Your task to perform on an android device: Open the Play Movies app and select the watchlist tab. Image 0: 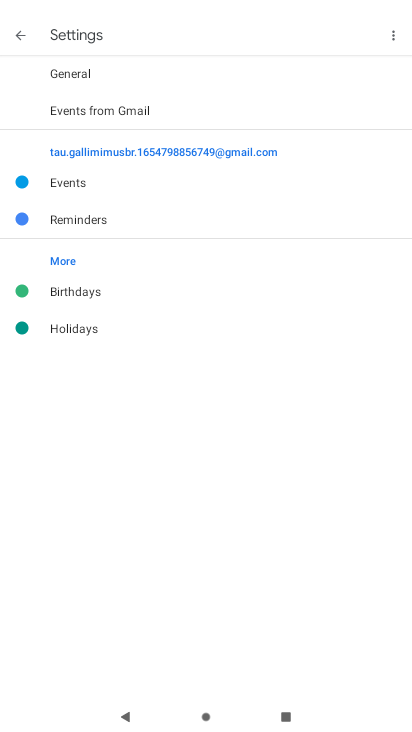
Step 0: press home button
Your task to perform on an android device: Open the Play Movies app and select the watchlist tab. Image 1: 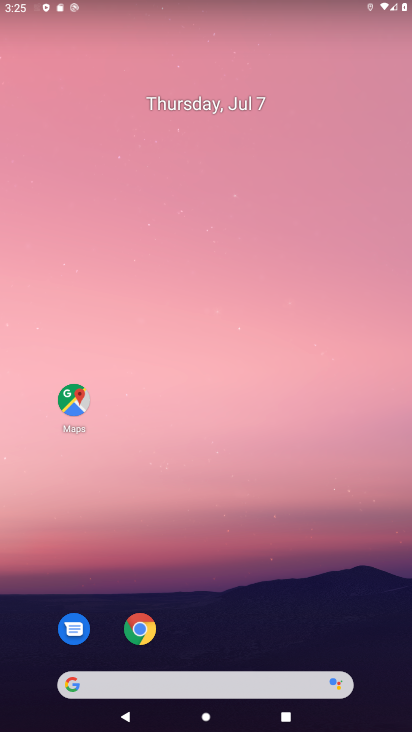
Step 1: drag from (237, 636) to (261, 164)
Your task to perform on an android device: Open the Play Movies app and select the watchlist tab. Image 2: 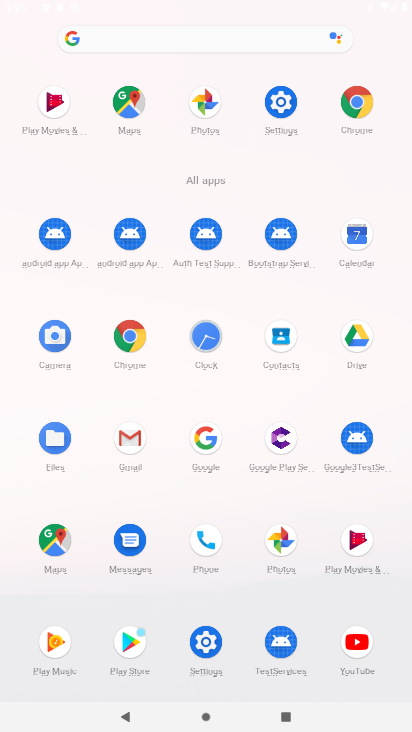
Step 2: click (362, 539)
Your task to perform on an android device: Open the Play Movies app and select the watchlist tab. Image 3: 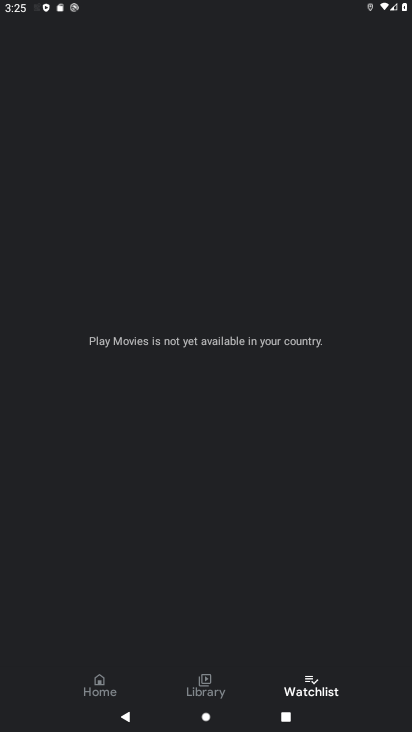
Step 3: click (309, 686)
Your task to perform on an android device: Open the Play Movies app and select the watchlist tab. Image 4: 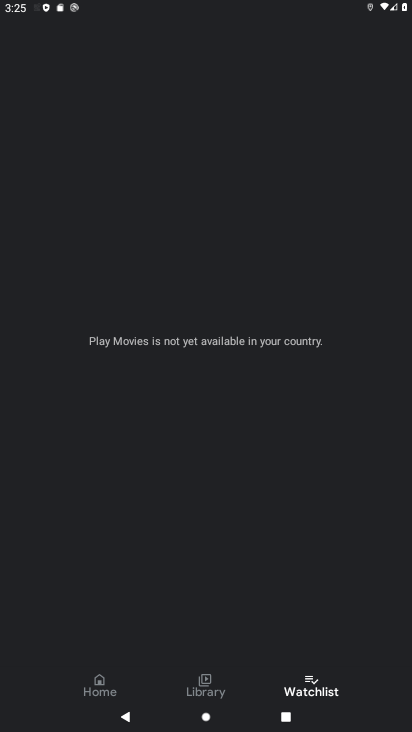
Step 4: task complete